Your task to perform on an android device: add a label to a message in the gmail app Image 0: 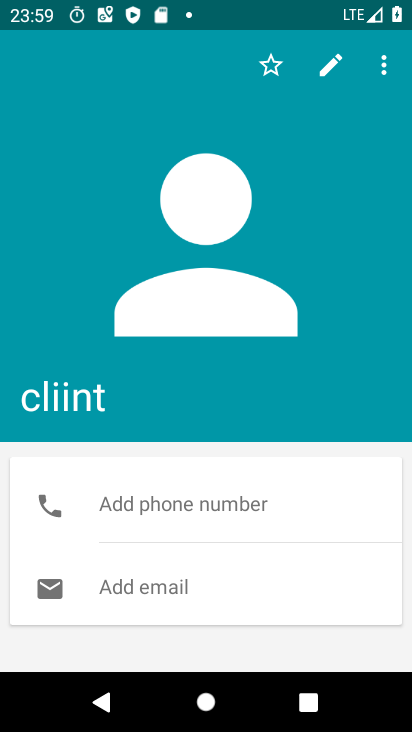
Step 0: press home button
Your task to perform on an android device: add a label to a message in the gmail app Image 1: 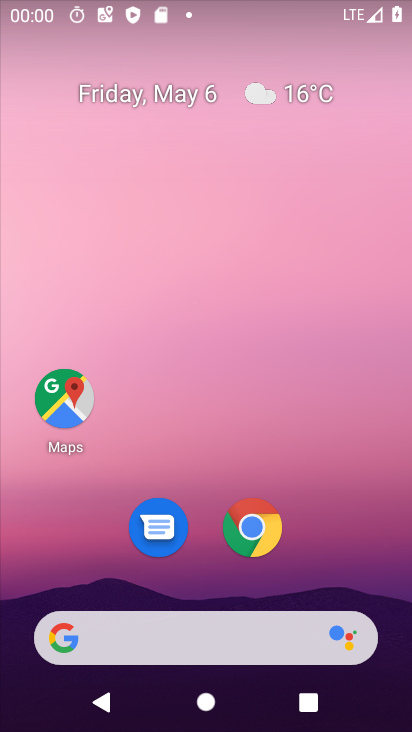
Step 1: drag from (192, 546) to (11, 495)
Your task to perform on an android device: add a label to a message in the gmail app Image 2: 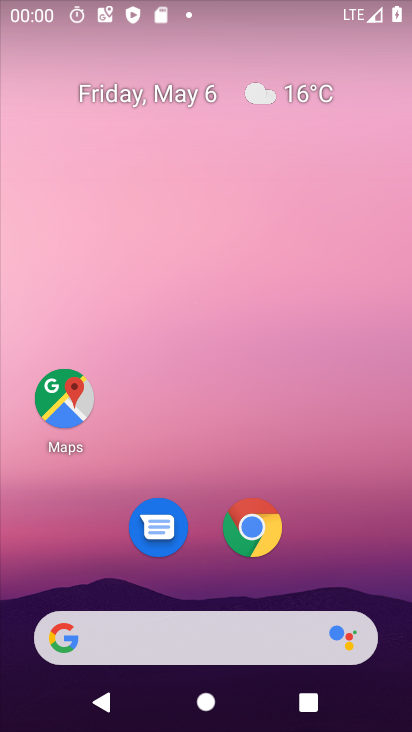
Step 2: drag from (206, 578) to (209, 67)
Your task to perform on an android device: add a label to a message in the gmail app Image 3: 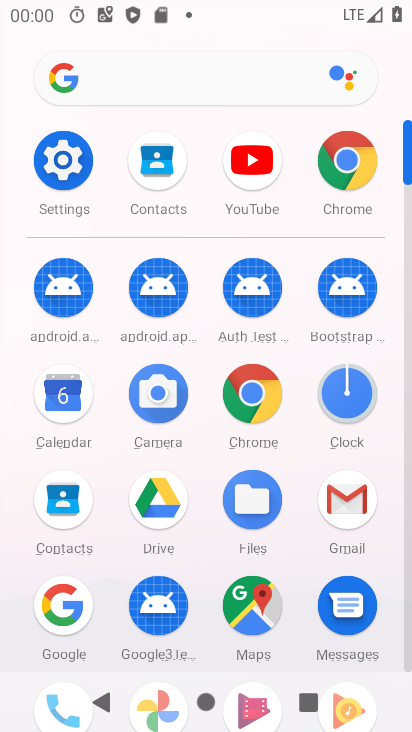
Step 3: click (343, 504)
Your task to perform on an android device: add a label to a message in the gmail app Image 4: 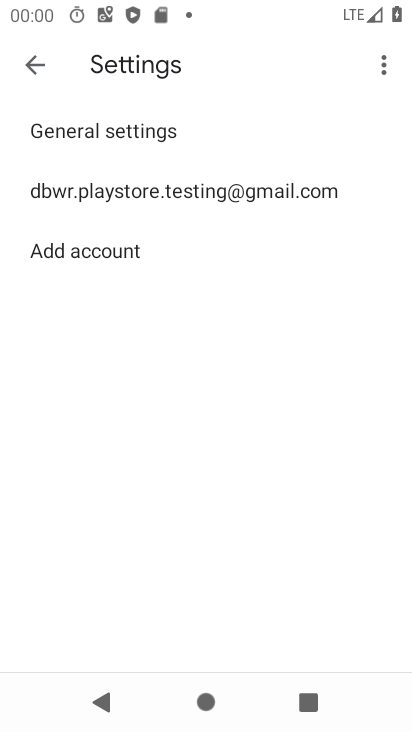
Step 4: click (24, 70)
Your task to perform on an android device: add a label to a message in the gmail app Image 5: 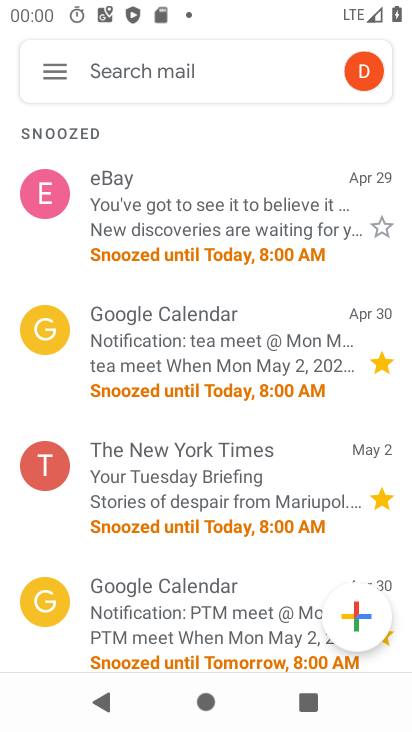
Step 5: click (53, 65)
Your task to perform on an android device: add a label to a message in the gmail app Image 6: 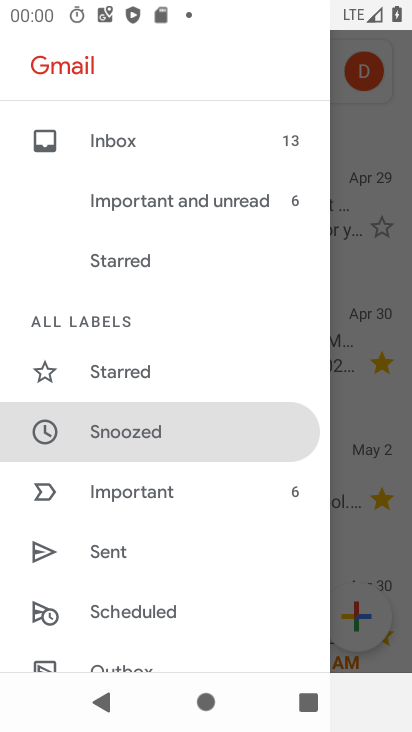
Step 6: drag from (141, 557) to (216, 201)
Your task to perform on an android device: add a label to a message in the gmail app Image 7: 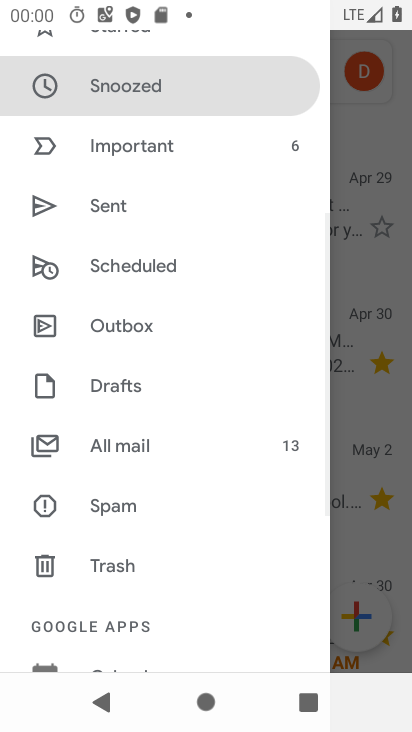
Step 7: click (159, 456)
Your task to perform on an android device: add a label to a message in the gmail app Image 8: 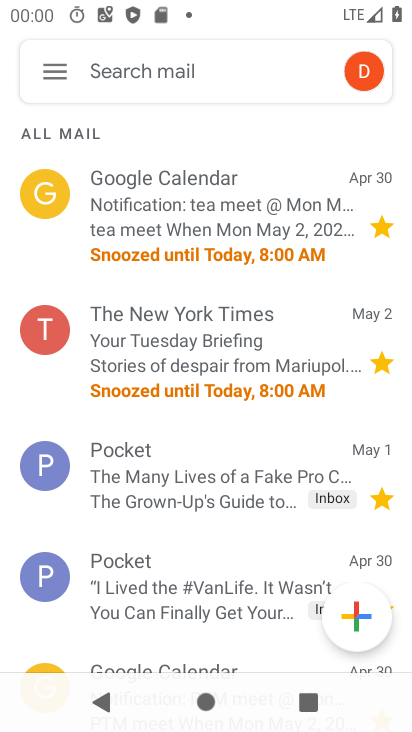
Step 8: click (37, 465)
Your task to perform on an android device: add a label to a message in the gmail app Image 9: 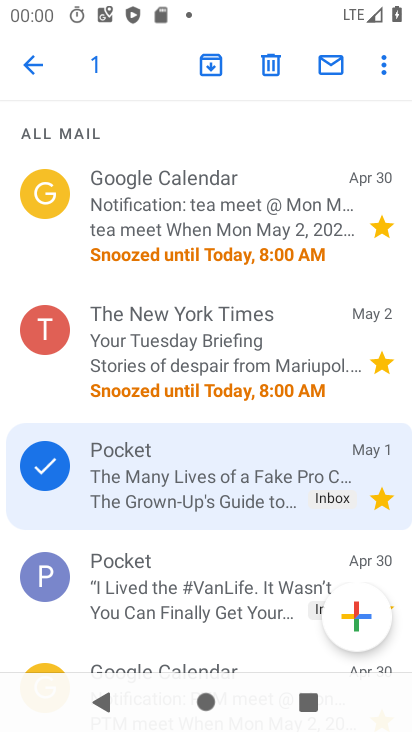
Step 9: click (365, 64)
Your task to perform on an android device: add a label to a message in the gmail app Image 10: 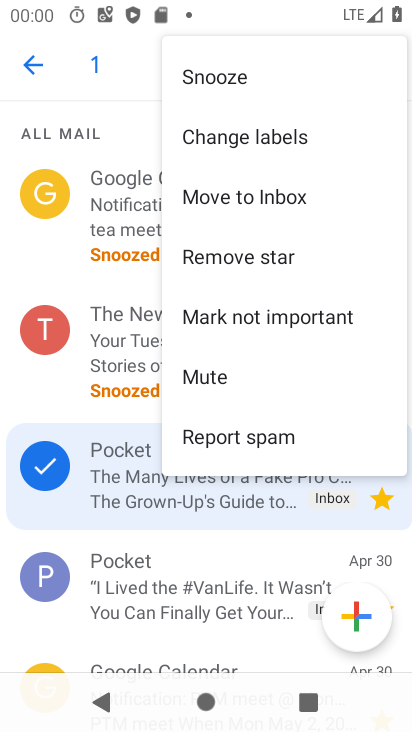
Step 10: click (288, 147)
Your task to perform on an android device: add a label to a message in the gmail app Image 11: 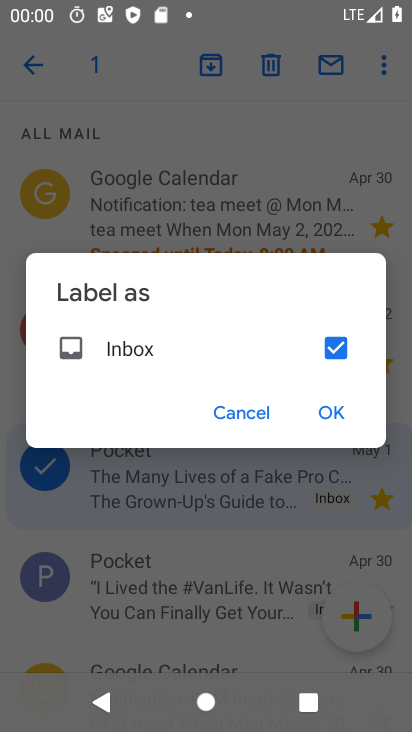
Step 11: click (336, 357)
Your task to perform on an android device: add a label to a message in the gmail app Image 12: 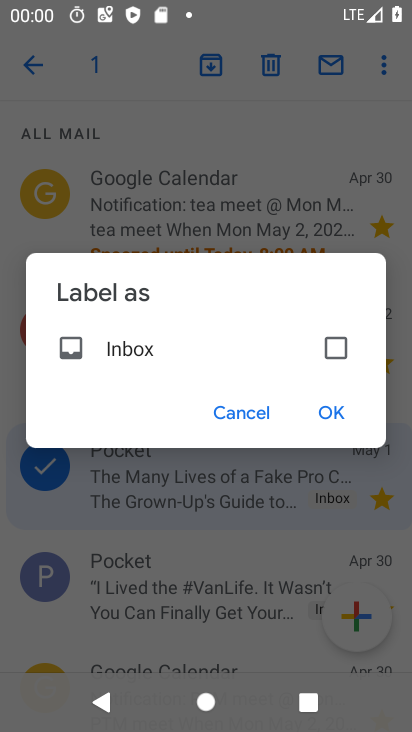
Step 12: click (335, 413)
Your task to perform on an android device: add a label to a message in the gmail app Image 13: 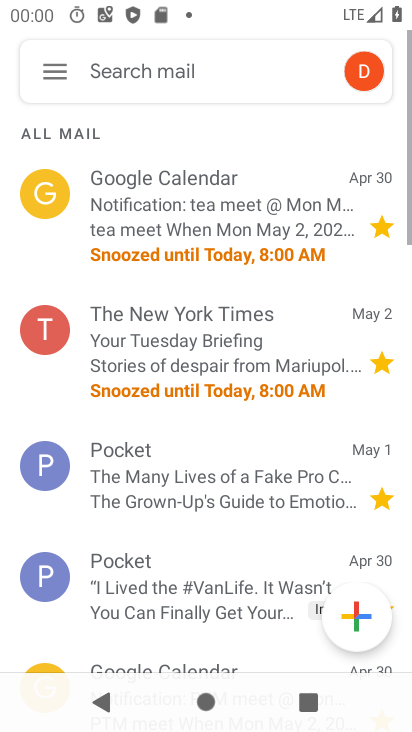
Step 13: task complete